Your task to perform on an android device: What's the weather? Image 0: 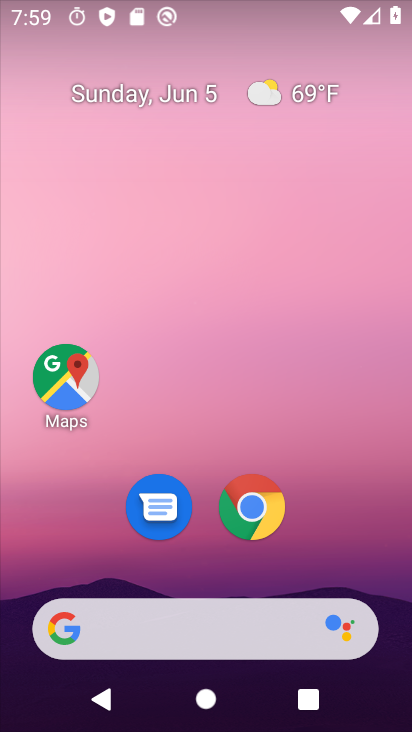
Step 0: drag from (327, 496) to (236, 34)
Your task to perform on an android device: What's the weather? Image 1: 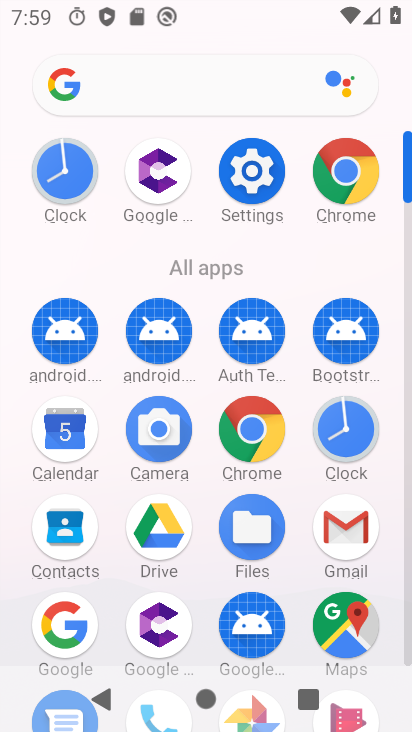
Step 1: click (247, 425)
Your task to perform on an android device: What's the weather? Image 2: 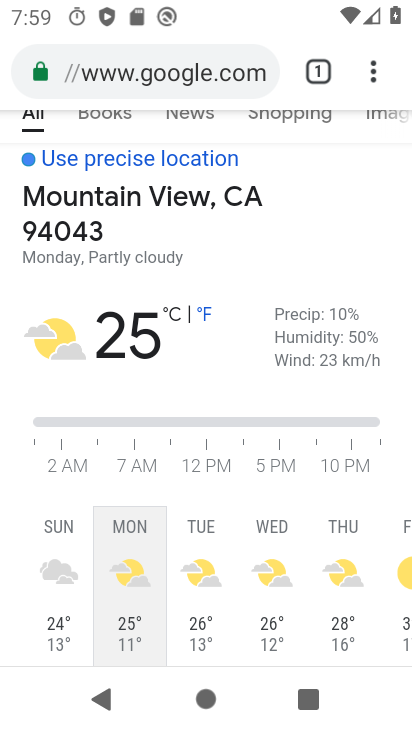
Step 2: click (194, 64)
Your task to perform on an android device: What's the weather? Image 3: 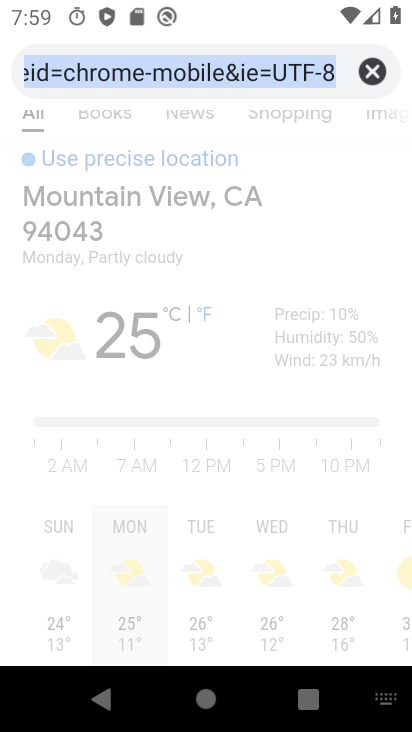
Step 3: click (365, 71)
Your task to perform on an android device: What's the weather? Image 4: 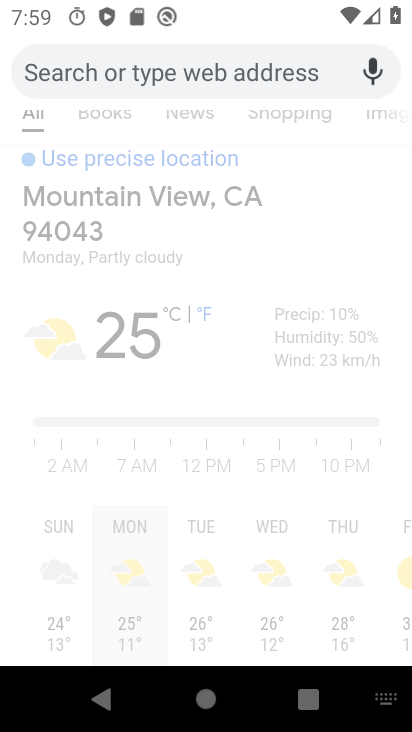
Step 4: type "What's the weather?"
Your task to perform on an android device: What's the weather? Image 5: 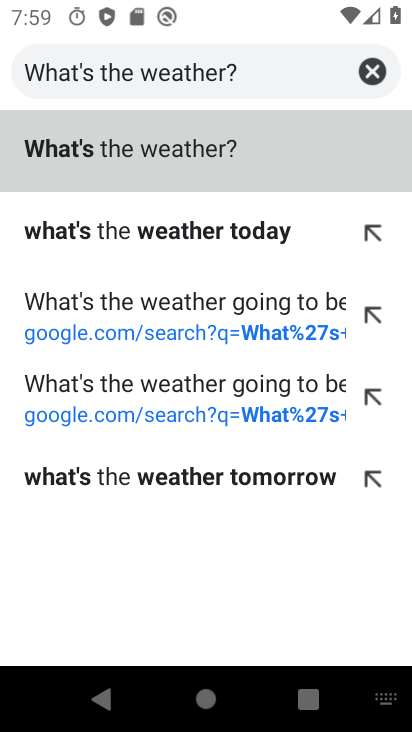
Step 5: click (210, 150)
Your task to perform on an android device: What's the weather? Image 6: 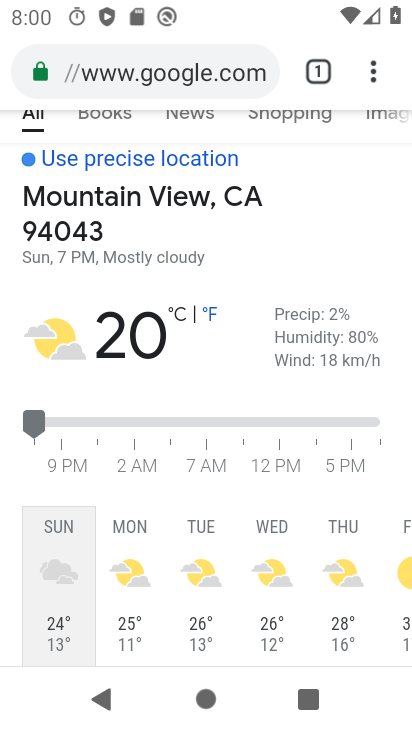
Step 6: task complete